Your task to perform on an android device: change alarm snooze length Image 0: 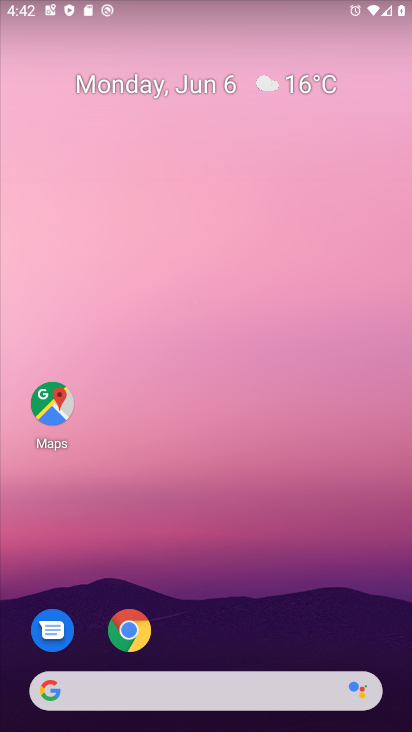
Step 0: drag from (304, 522) to (172, 0)
Your task to perform on an android device: change alarm snooze length Image 1: 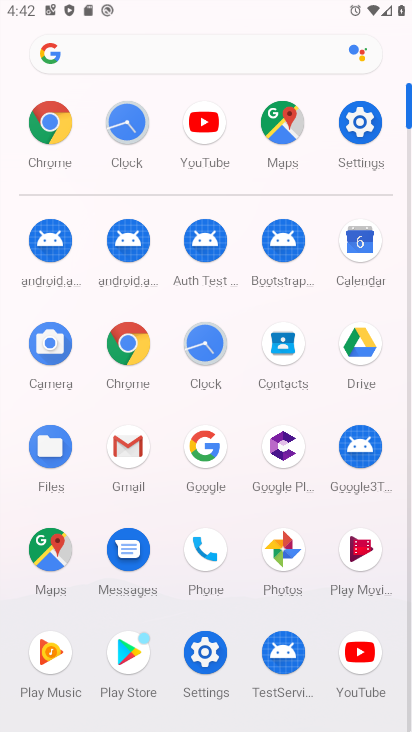
Step 1: click (223, 335)
Your task to perform on an android device: change alarm snooze length Image 2: 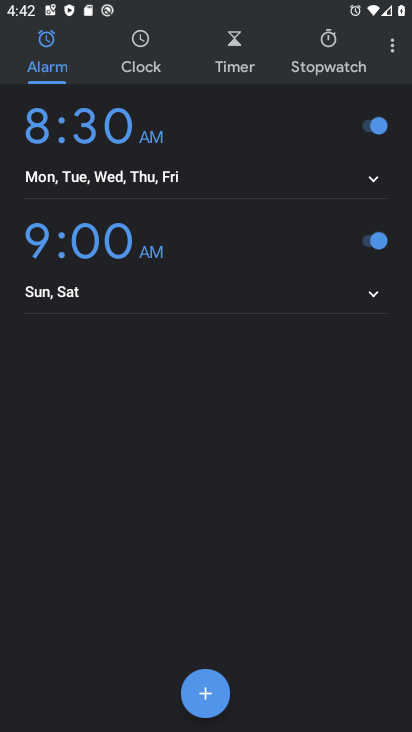
Step 2: click (378, 34)
Your task to perform on an android device: change alarm snooze length Image 3: 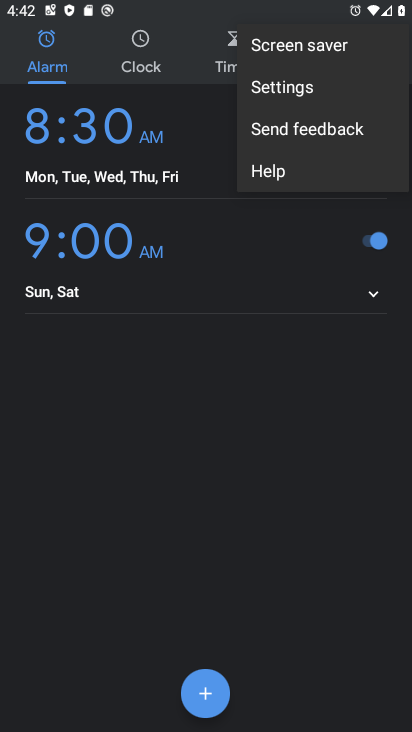
Step 3: click (281, 95)
Your task to perform on an android device: change alarm snooze length Image 4: 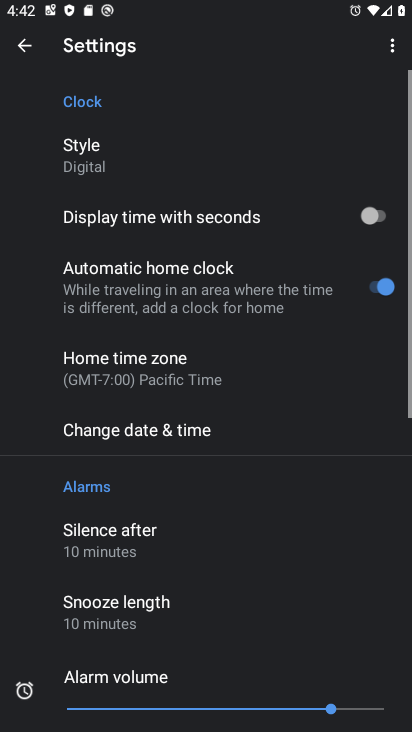
Step 4: click (222, 607)
Your task to perform on an android device: change alarm snooze length Image 5: 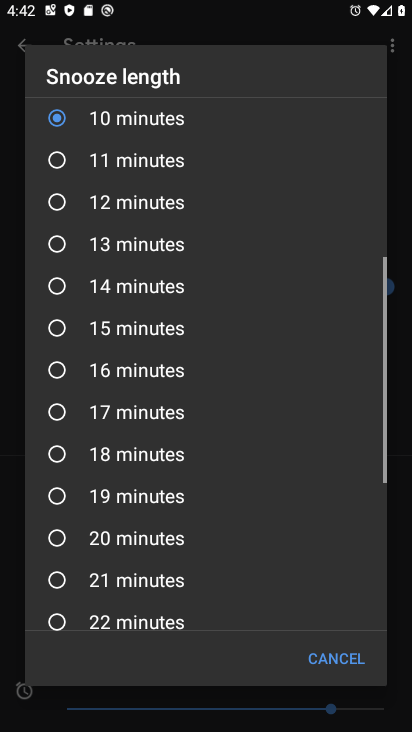
Step 5: click (117, 198)
Your task to perform on an android device: change alarm snooze length Image 6: 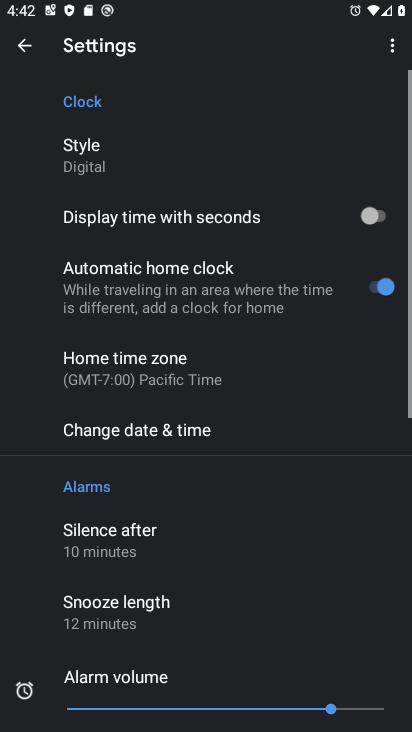
Step 6: task complete